Your task to perform on an android device: Set the phone to "Do not disturb". Image 0: 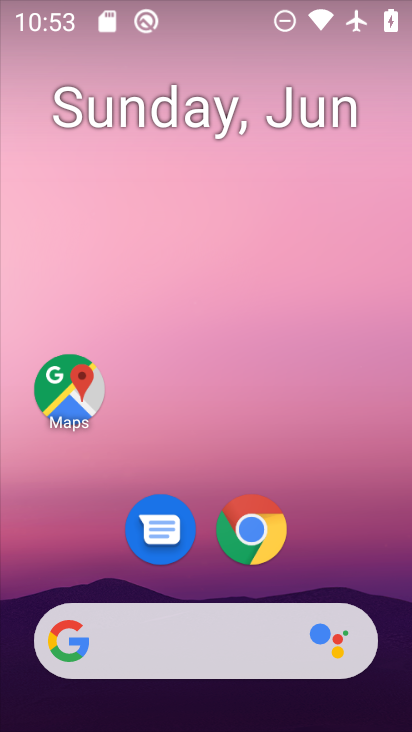
Step 0: drag from (386, 640) to (355, 68)
Your task to perform on an android device: Set the phone to "Do not disturb". Image 1: 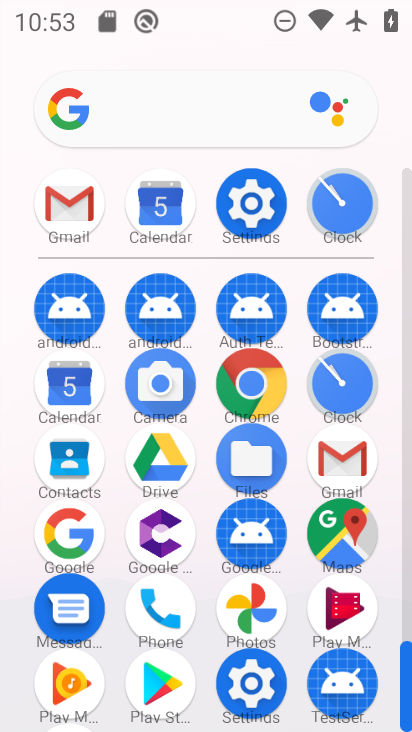
Step 1: click (250, 685)
Your task to perform on an android device: Set the phone to "Do not disturb". Image 2: 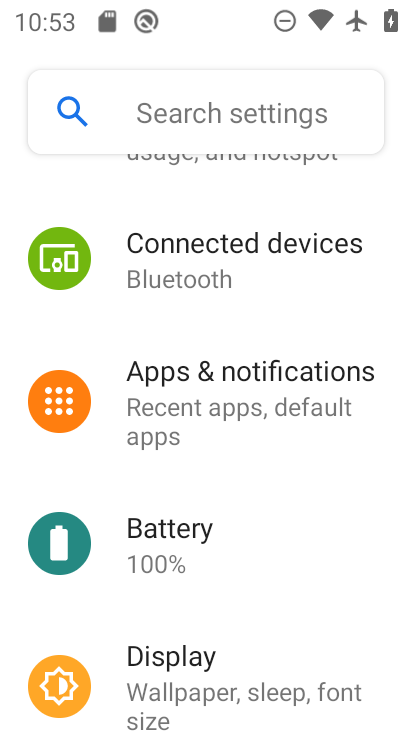
Step 2: drag from (368, 650) to (342, 244)
Your task to perform on an android device: Set the phone to "Do not disturb". Image 3: 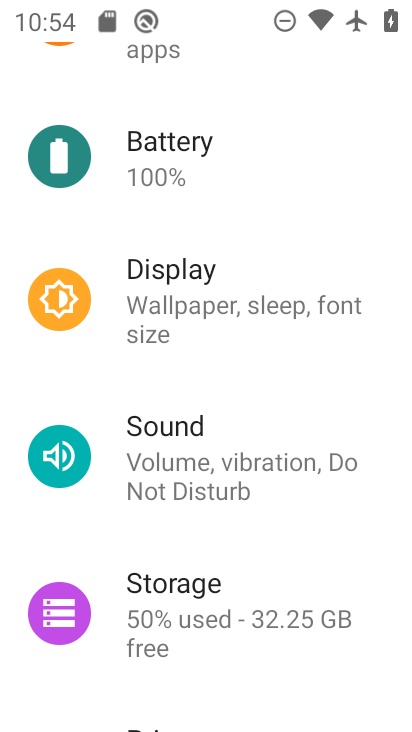
Step 3: click (190, 449)
Your task to perform on an android device: Set the phone to "Do not disturb". Image 4: 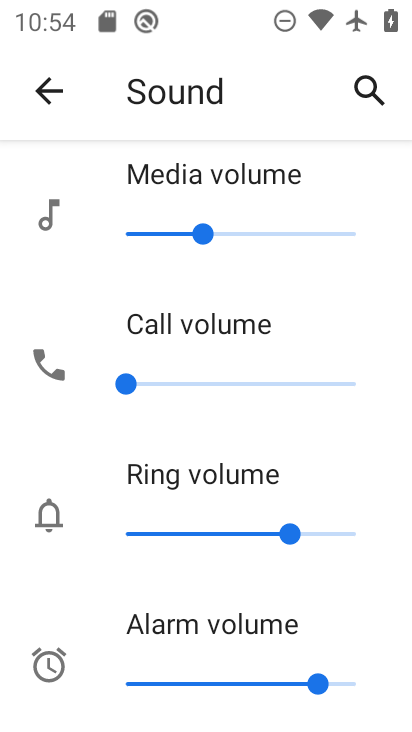
Step 4: drag from (329, 632) to (335, 171)
Your task to perform on an android device: Set the phone to "Do not disturb". Image 5: 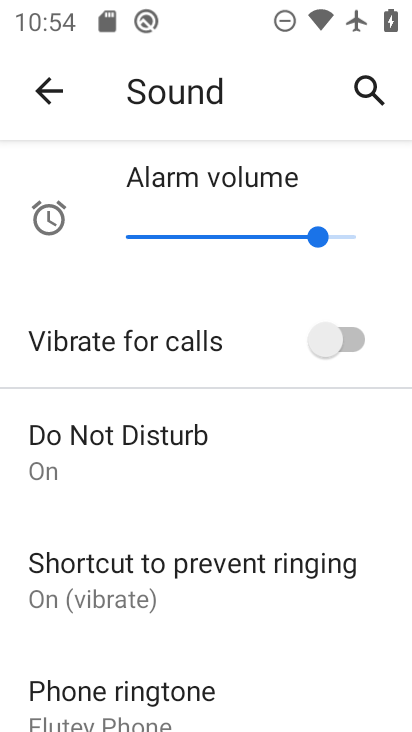
Step 5: click (72, 450)
Your task to perform on an android device: Set the phone to "Do not disturb". Image 6: 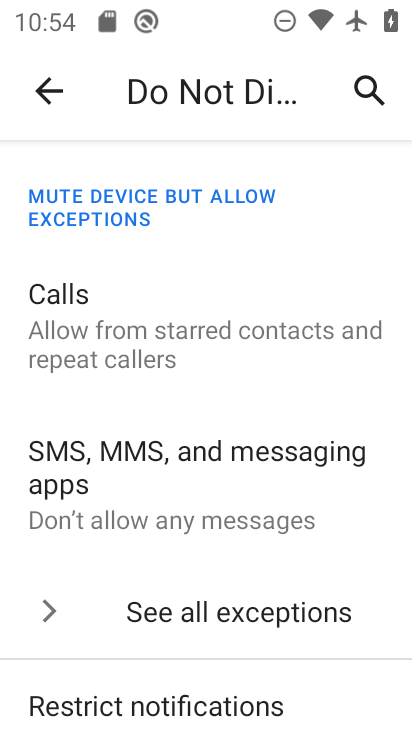
Step 6: task complete